Your task to perform on an android device: find snoozed emails in the gmail app Image 0: 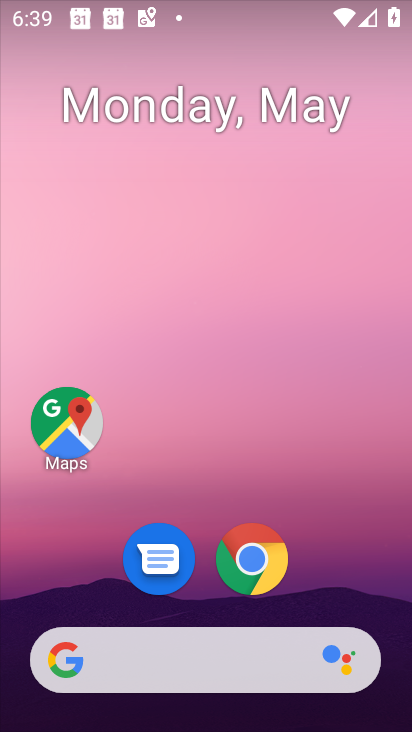
Step 0: drag from (387, 631) to (278, 136)
Your task to perform on an android device: find snoozed emails in the gmail app Image 1: 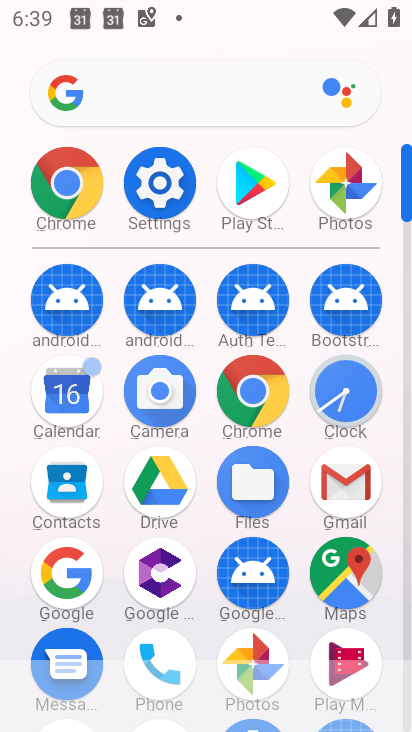
Step 1: click (338, 480)
Your task to perform on an android device: find snoozed emails in the gmail app Image 2: 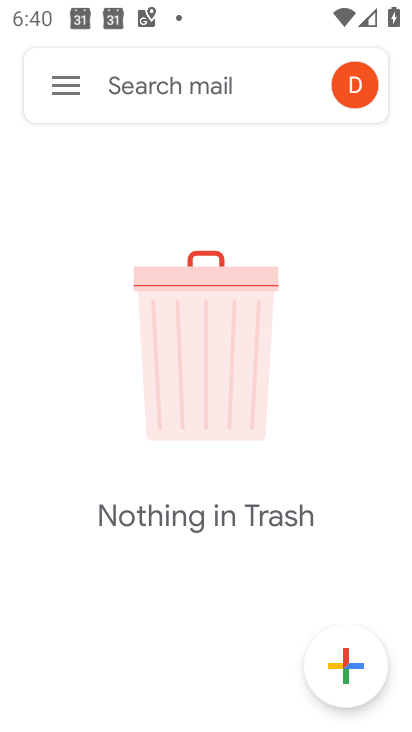
Step 2: click (60, 94)
Your task to perform on an android device: find snoozed emails in the gmail app Image 3: 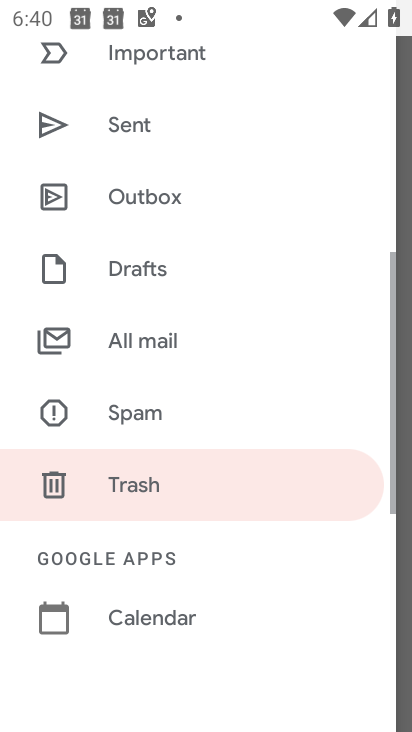
Step 3: drag from (74, 138) to (111, 491)
Your task to perform on an android device: find snoozed emails in the gmail app Image 4: 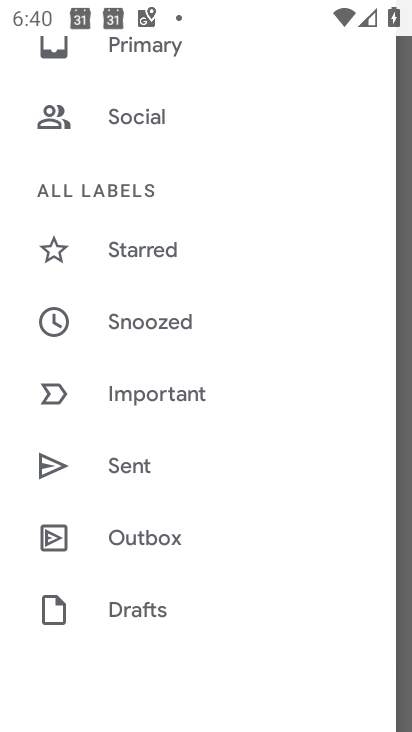
Step 4: click (131, 337)
Your task to perform on an android device: find snoozed emails in the gmail app Image 5: 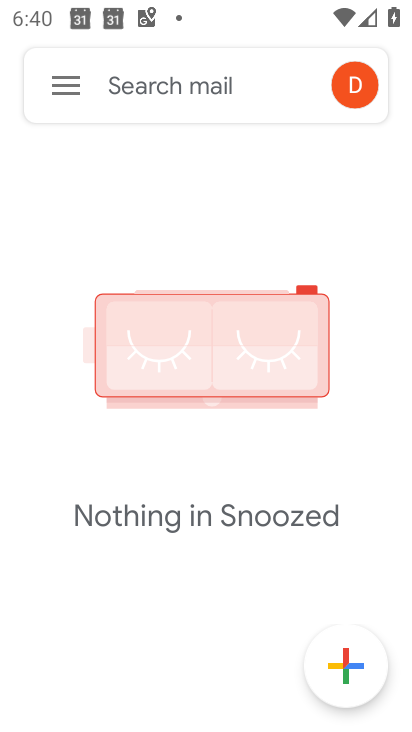
Step 5: task complete